Your task to perform on an android device: empty trash in the gmail app Image 0: 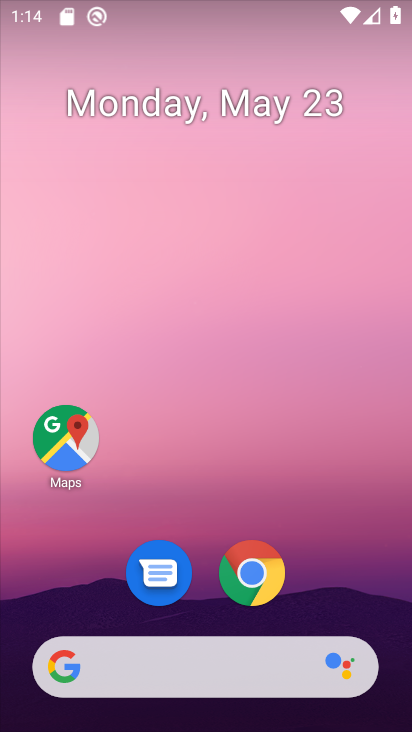
Step 0: drag from (329, 597) to (310, 85)
Your task to perform on an android device: empty trash in the gmail app Image 1: 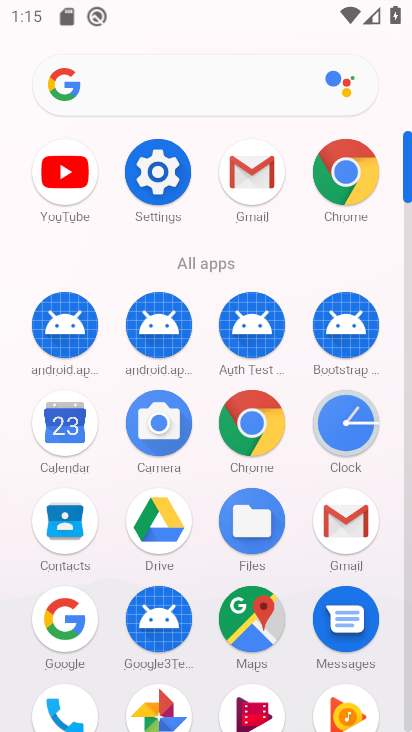
Step 1: click (260, 177)
Your task to perform on an android device: empty trash in the gmail app Image 2: 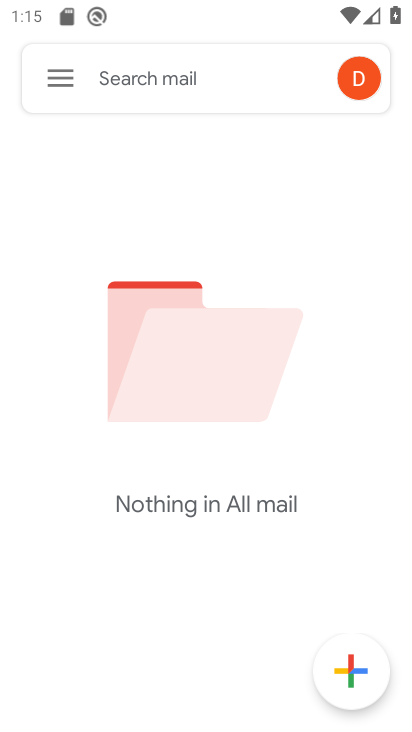
Step 2: click (59, 70)
Your task to perform on an android device: empty trash in the gmail app Image 3: 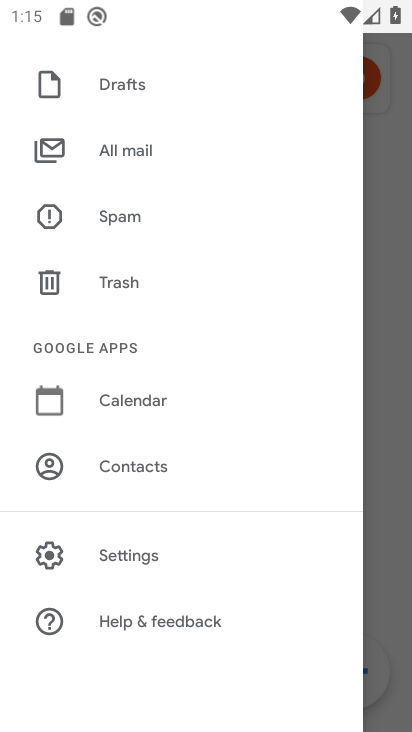
Step 3: click (128, 275)
Your task to perform on an android device: empty trash in the gmail app Image 4: 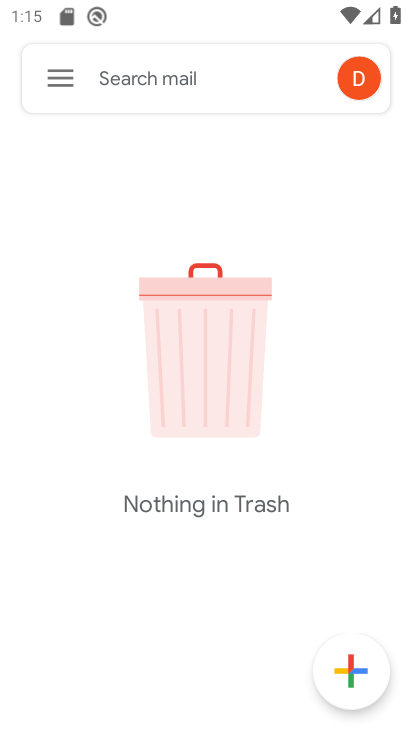
Step 4: task complete